Your task to perform on an android device: check out phone information Image 0: 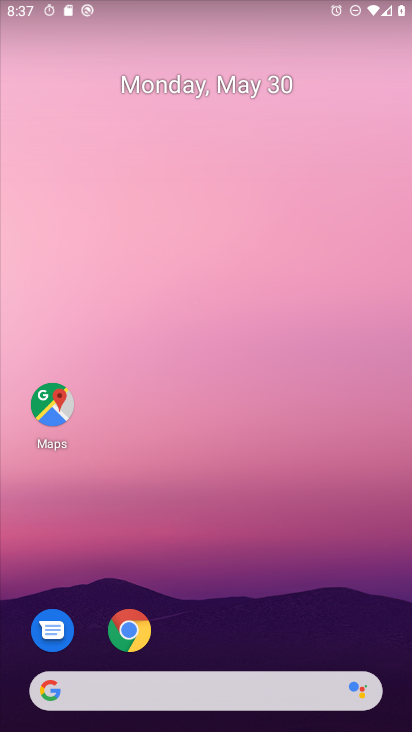
Step 0: drag from (297, 625) to (323, 38)
Your task to perform on an android device: check out phone information Image 1: 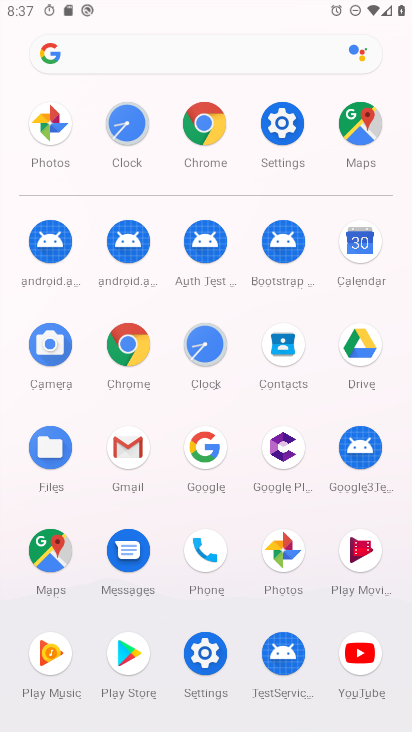
Step 1: click (277, 118)
Your task to perform on an android device: check out phone information Image 2: 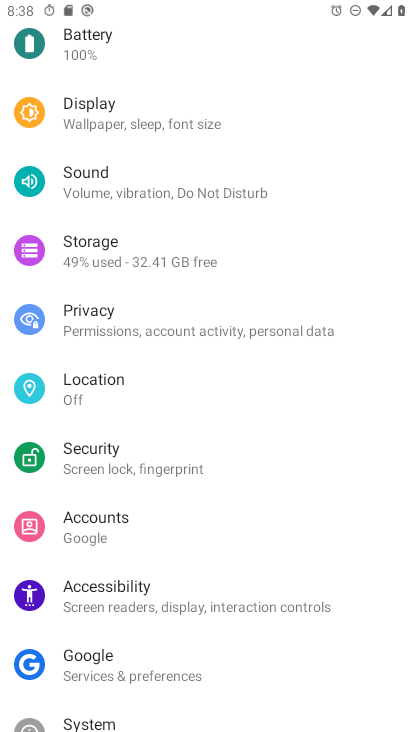
Step 2: drag from (189, 693) to (280, 21)
Your task to perform on an android device: check out phone information Image 3: 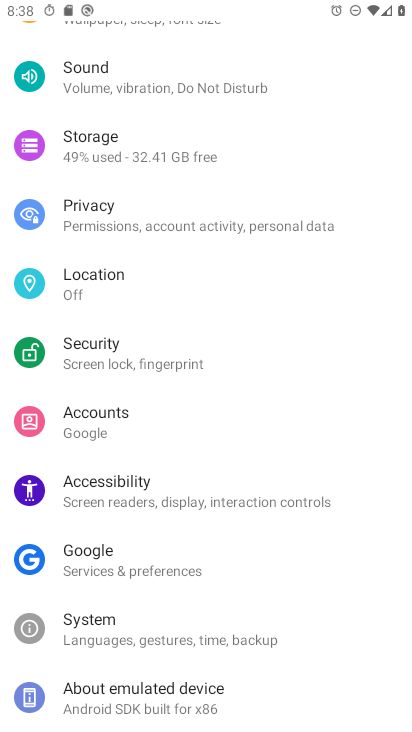
Step 3: click (204, 715)
Your task to perform on an android device: check out phone information Image 4: 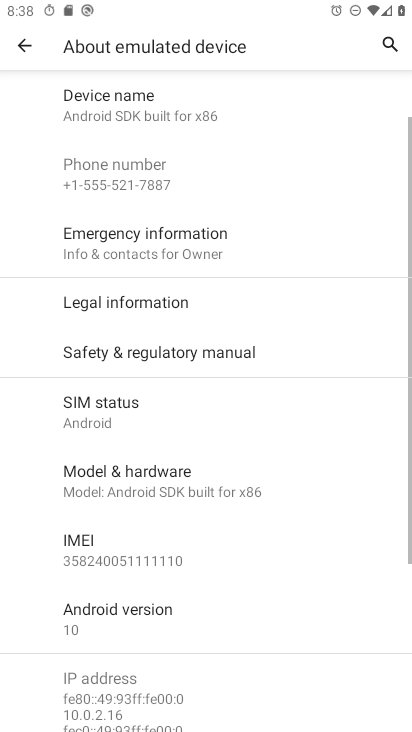
Step 4: task complete